Your task to perform on an android device: manage bookmarks in the chrome app Image 0: 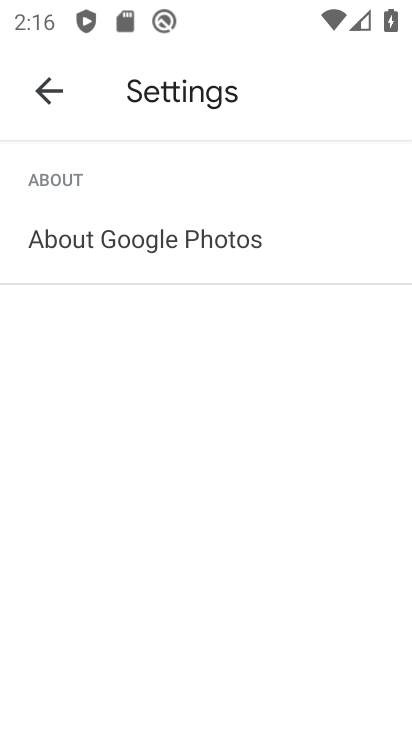
Step 0: press back button
Your task to perform on an android device: manage bookmarks in the chrome app Image 1: 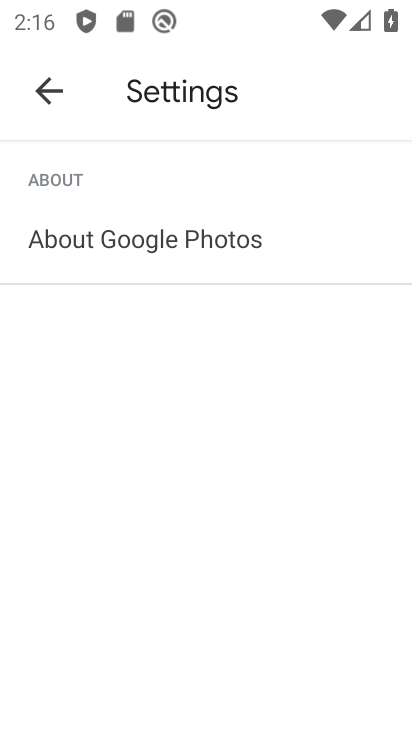
Step 1: press back button
Your task to perform on an android device: manage bookmarks in the chrome app Image 2: 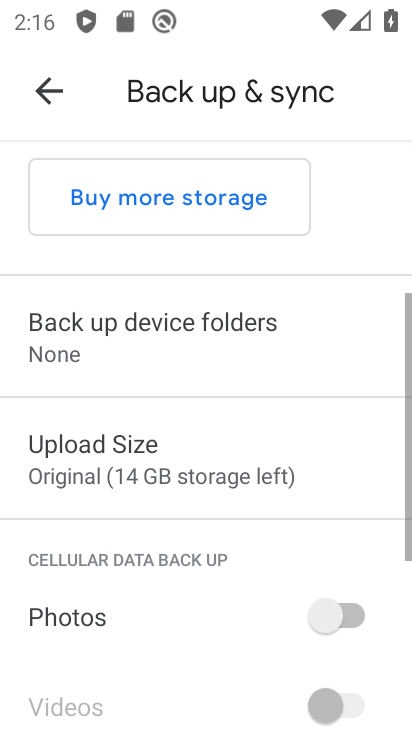
Step 2: press back button
Your task to perform on an android device: manage bookmarks in the chrome app Image 3: 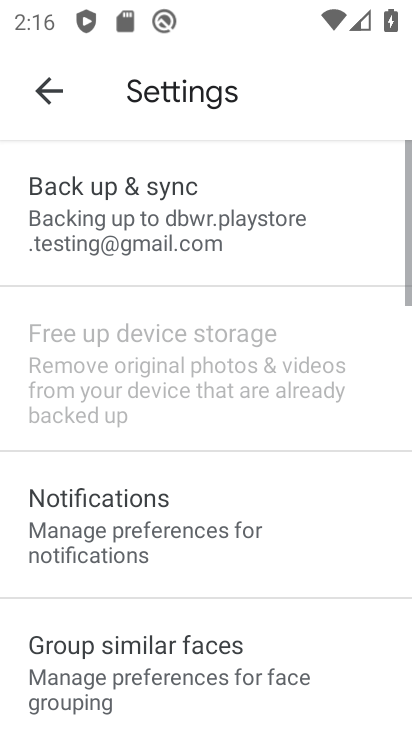
Step 3: press back button
Your task to perform on an android device: manage bookmarks in the chrome app Image 4: 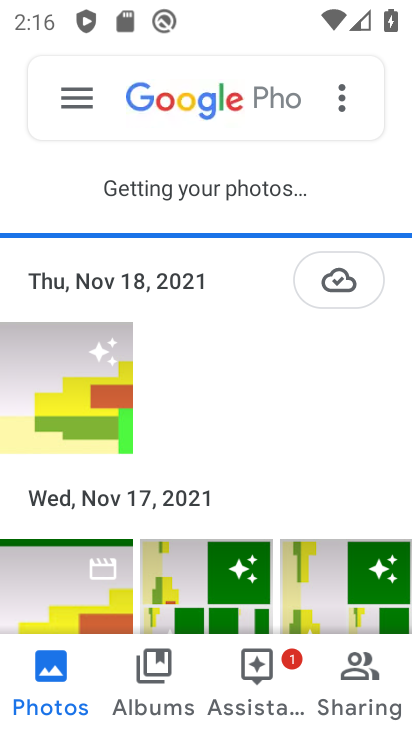
Step 4: press back button
Your task to perform on an android device: manage bookmarks in the chrome app Image 5: 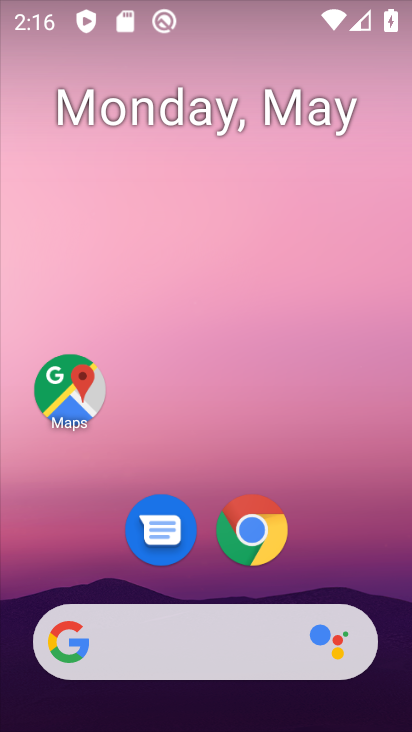
Step 5: click (258, 524)
Your task to perform on an android device: manage bookmarks in the chrome app Image 6: 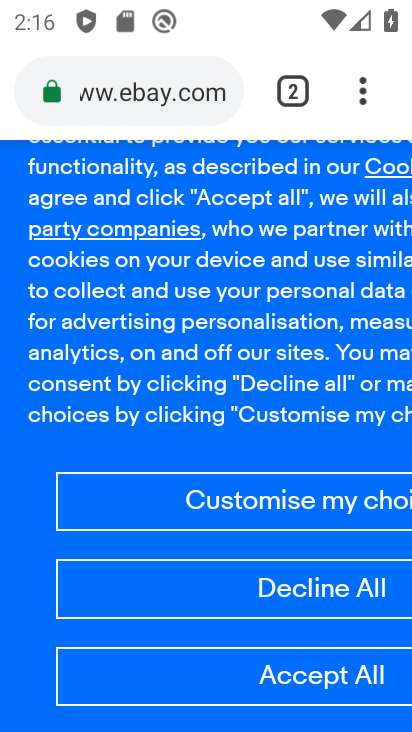
Step 6: task complete